Your task to perform on an android device: Find coffee shops on Maps Image 0: 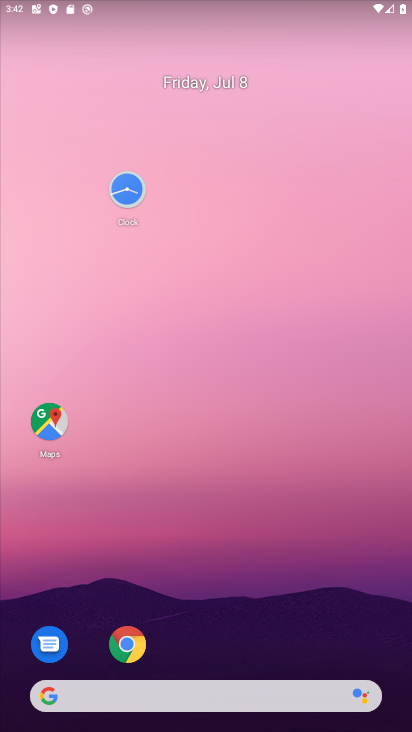
Step 0: drag from (217, 567) to (205, 279)
Your task to perform on an android device: Find coffee shops on Maps Image 1: 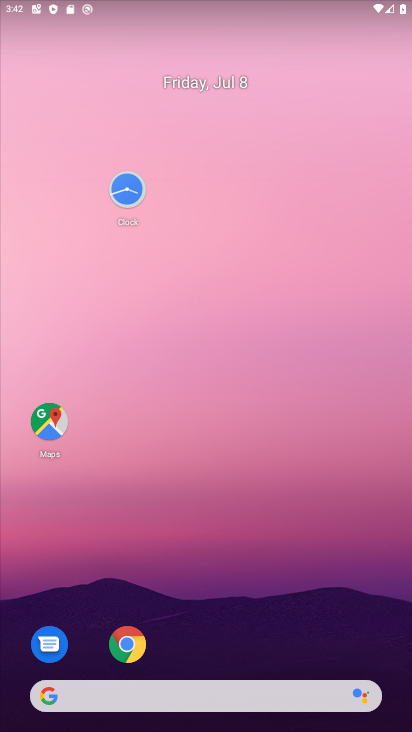
Step 1: drag from (265, 541) to (145, 129)
Your task to perform on an android device: Find coffee shops on Maps Image 2: 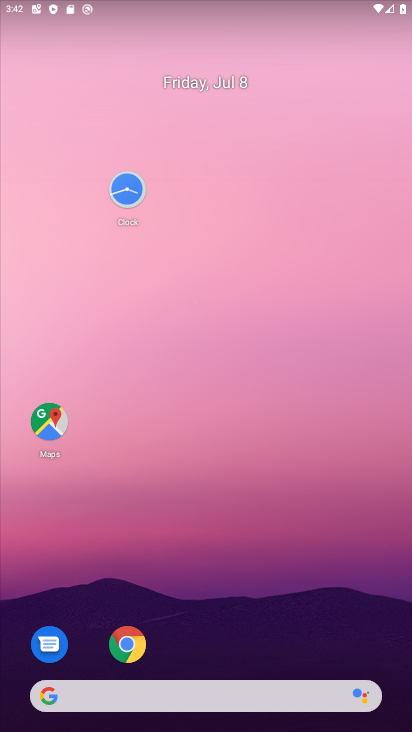
Step 2: drag from (189, 477) to (113, 101)
Your task to perform on an android device: Find coffee shops on Maps Image 3: 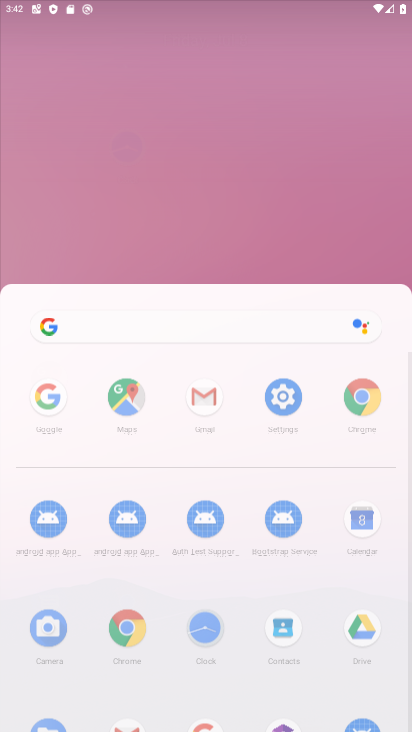
Step 3: drag from (204, 585) to (166, 86)
Your task to perform on an android device: Find coffee shops on Maps Image 4: 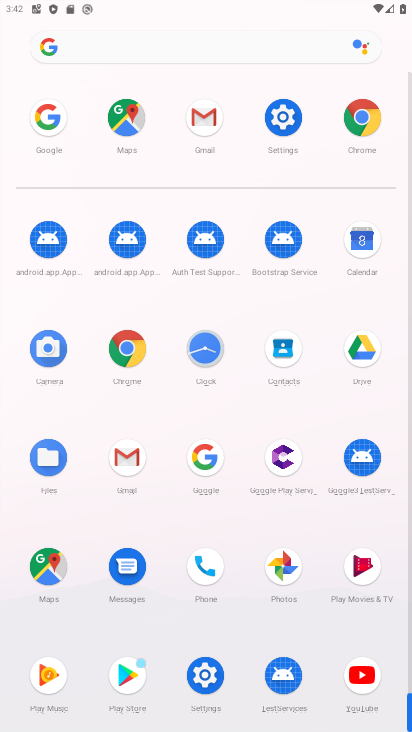
Step 4: drag from (190, 455) to (177, 151)
Your task to perform on an android device: Find coffee shops on Maps Image 5: 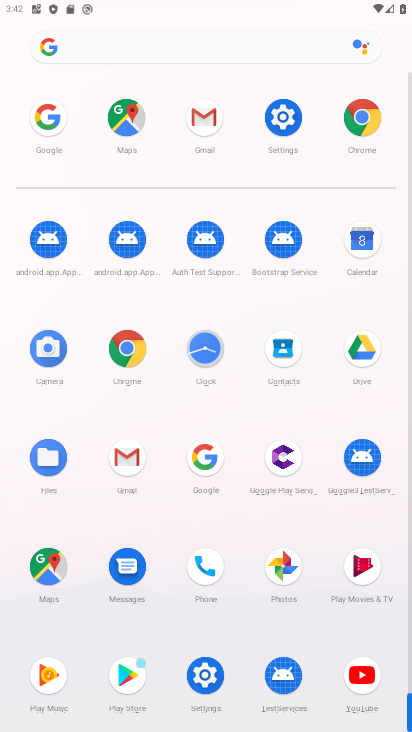
Step 5: click (122, 111)
Your task to perform on an android device: Find coffee shops on Maps Image 6: 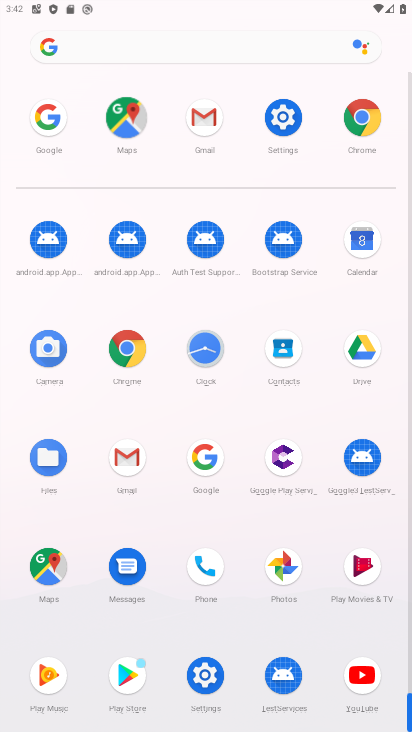
Step 6: click (122, 111)
Your task to perform on an android device: Find coffee shops on Maps Image 7: 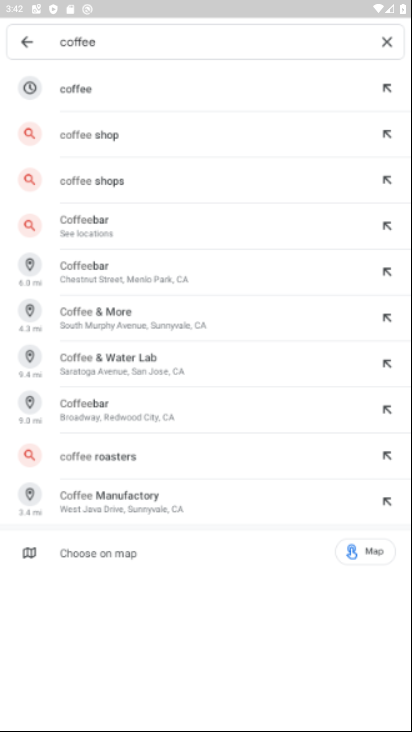
Step 7: click (121, 110)
Your task to perform on an android device: Find coffee shops on Maps Image 8: 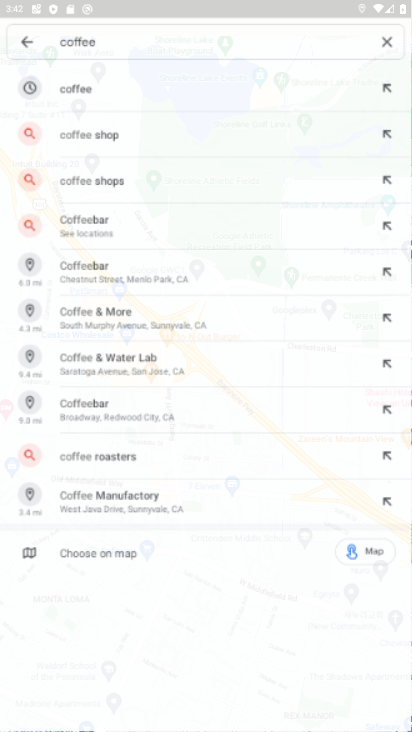
Step 8: click (121, 110)
Your task to perform on an android device: Find coffee shops on Maps Image 9: 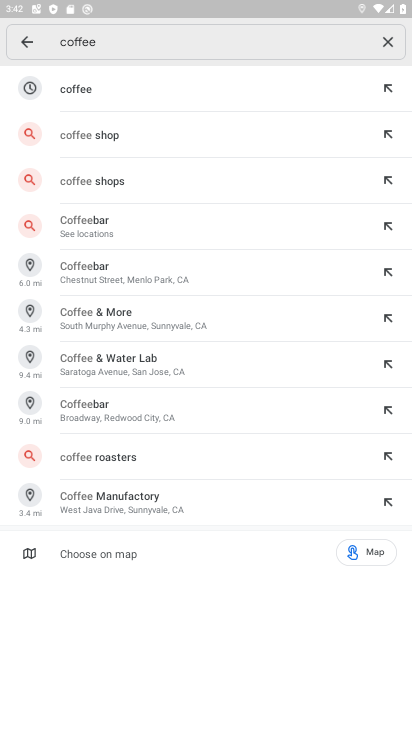
Step 9: click (78, 94)
Your task to perform on an android device: Find coffee shops on Maps Image 10: 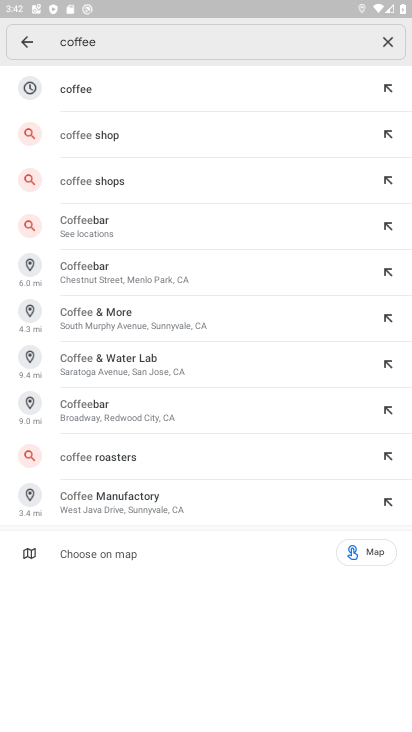
Step 10: click (71, 89)
Your task to perform on an android device: Find coffee shops on Maps Image 11: 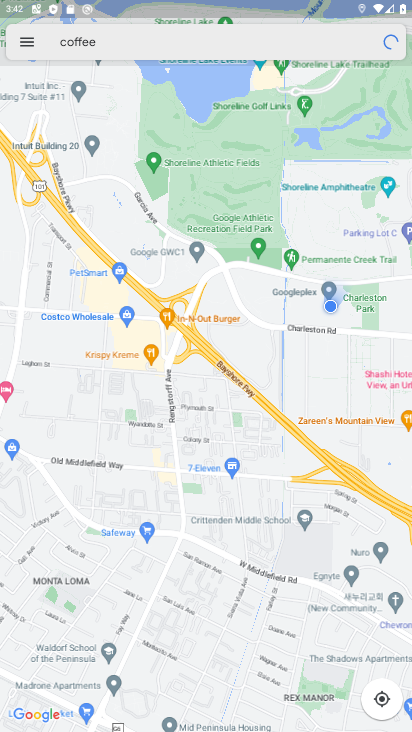
Step 11: click (86, 80)
Your task to perform on an android device: Find coffee shops on Maps Image 12: 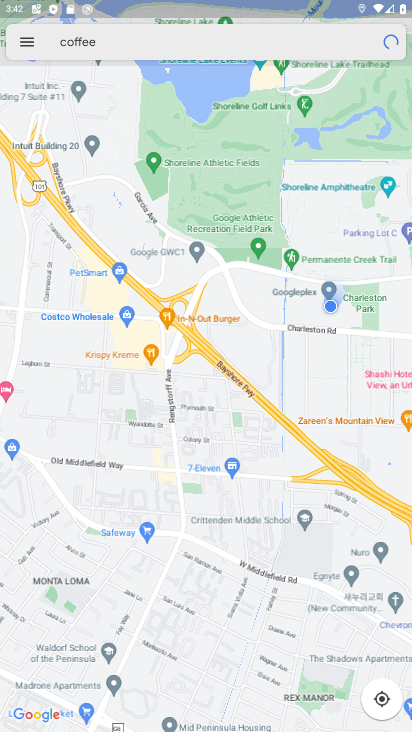
Step 12: task complete